Your task to perform on an android device: open app "Gmail" (install if not already installed) and go to login screen Image 0: 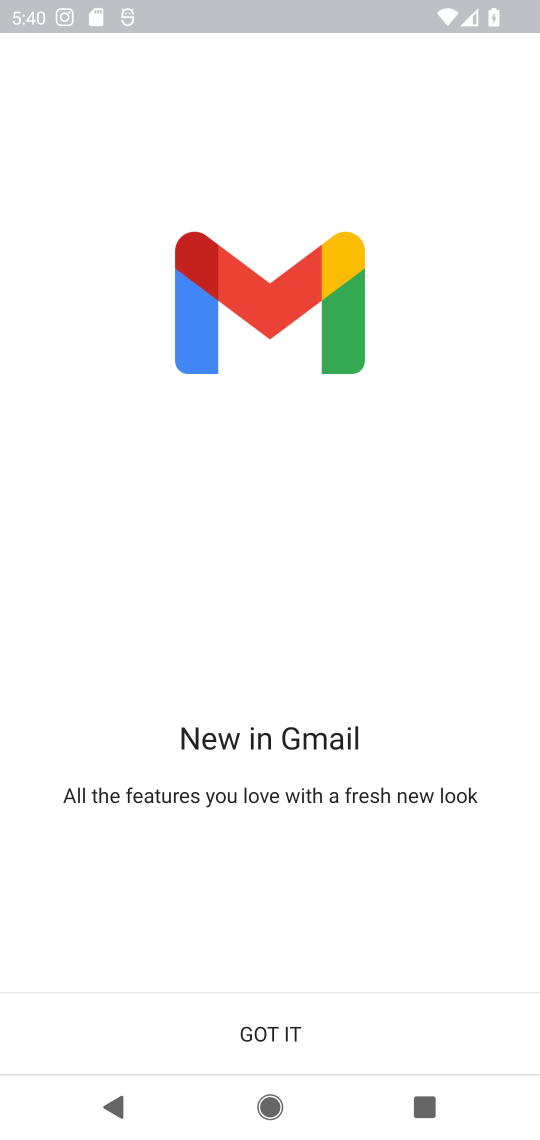
Step 0: click (268, 1025)
Your task to perform on an android device: open app "Gmail" (install if not already installed) and go to login screen Image 1: 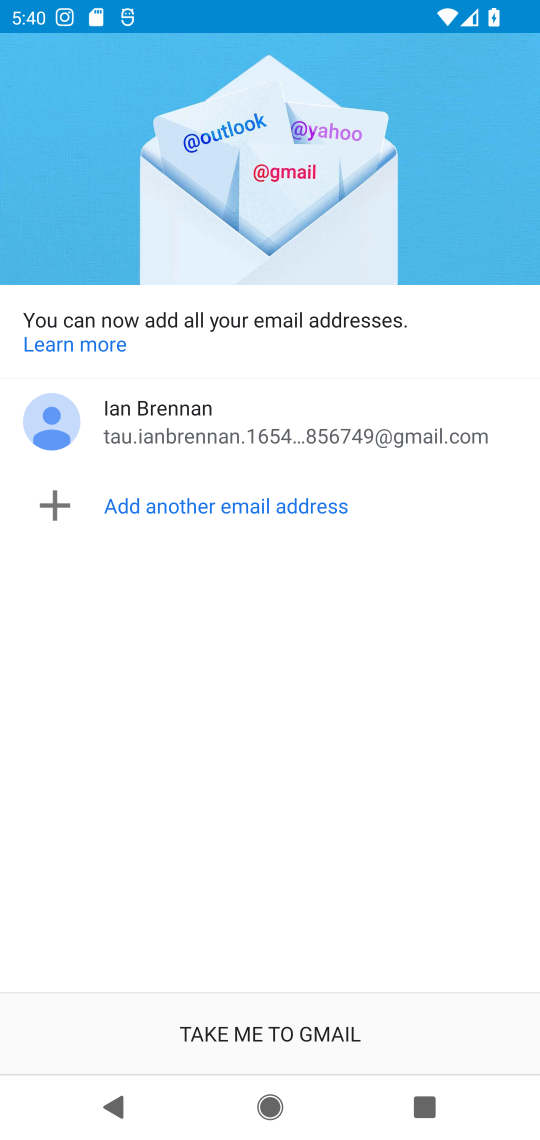
Step 1: click (209, 506)
Your task to perform on an android device: open app "Gmail" (install if not already installed) and go to login screen Image 2: 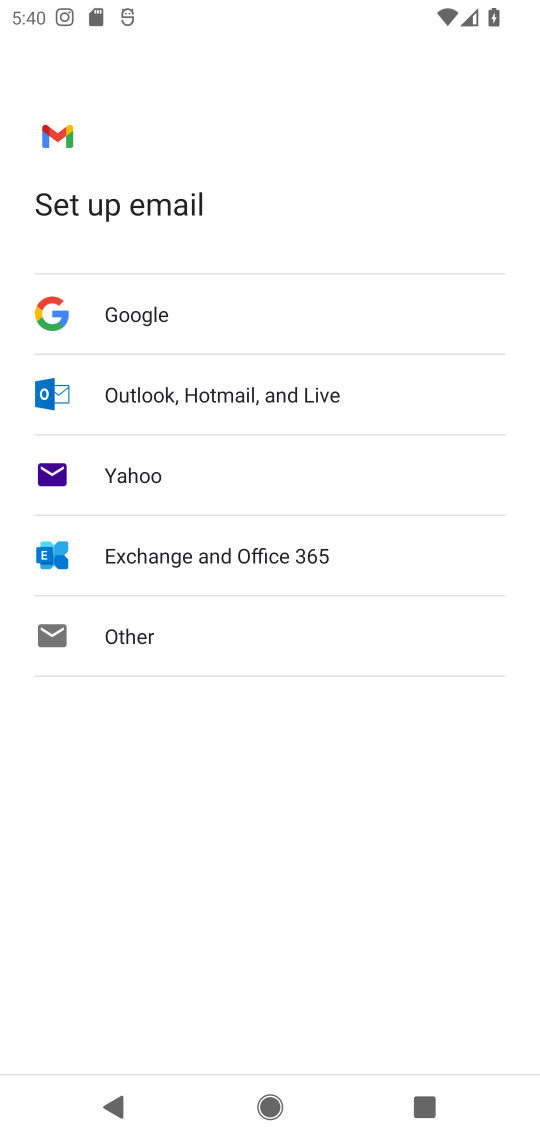
Step 2: click (139, 311)
Your task to perform on an android device: open app "Gmail" (install if not already installed) and go to login screen Image 3: 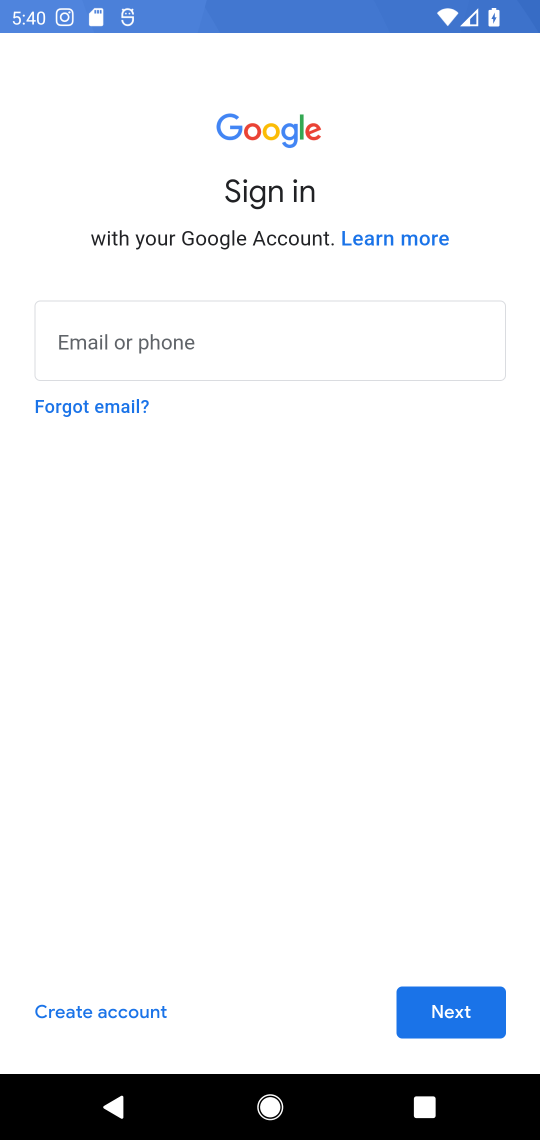
Step 3: task complete